Your task to perform on an android device: Open Google Chrome and click the shortcut for Amazon.com Image 0: 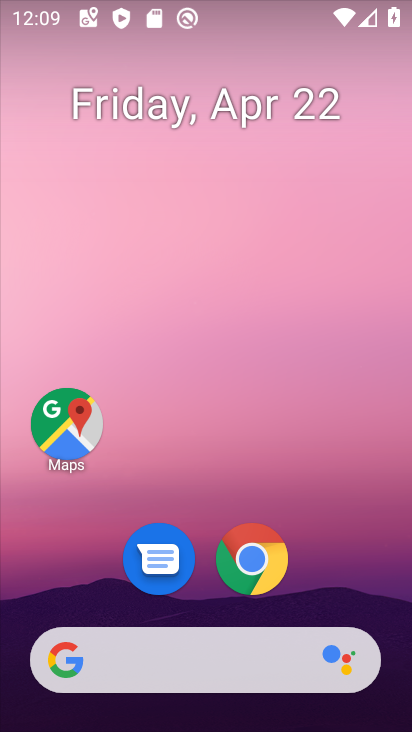
Step 0: click (263, 569)
Your task to perform on an android device: Open Google Chrome and click the shortcut for Amazon.com Image 1: 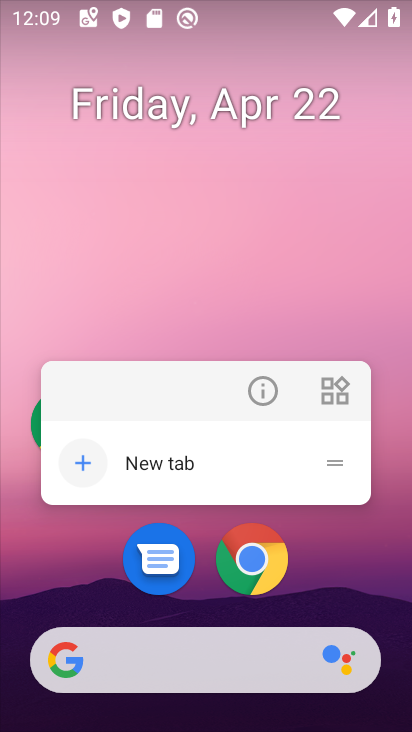
Step 1: click (252, 573)
Your task to perform on an android device: Open Google Chrome and click the shortcut for Amazon.com Image 2: 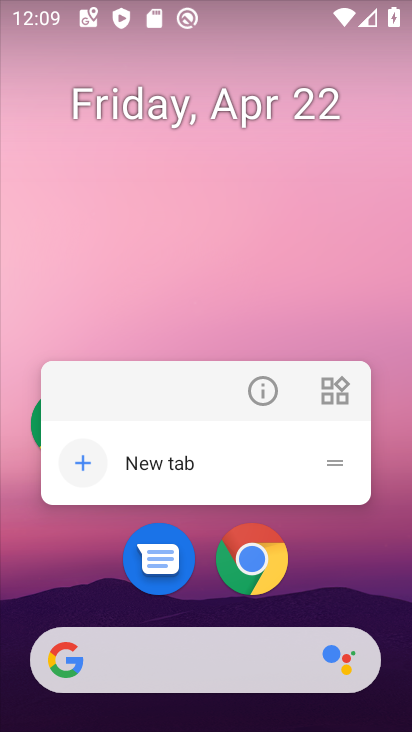
Step 2: click (261, 577)
Your task to perform on an android device: Open Google Chrome and click the shortcut for Amazon.com Image 3: 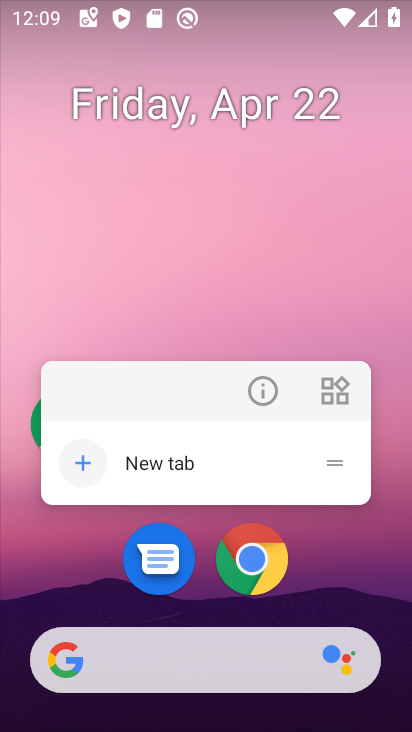
Step 3: click (261, 577)
Your task to perform on an android device: Open Google Chrome and click the shortcut for Amazon.com Image 4: 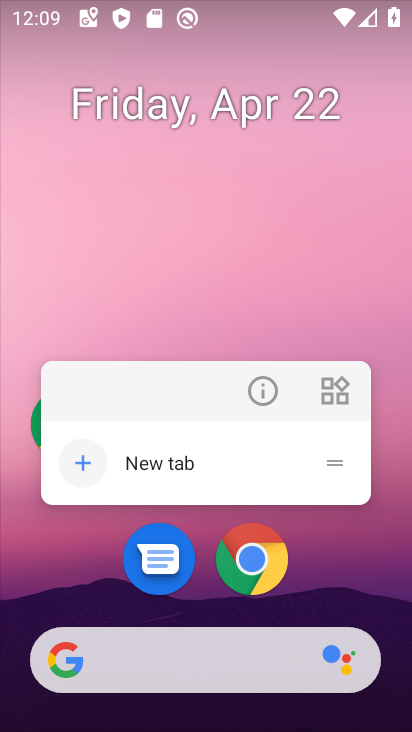
Step 4: click (252, 589)
Your task to perform on an android device: Open Google Chrome and click the shortcut for Amazon.com Image 5: 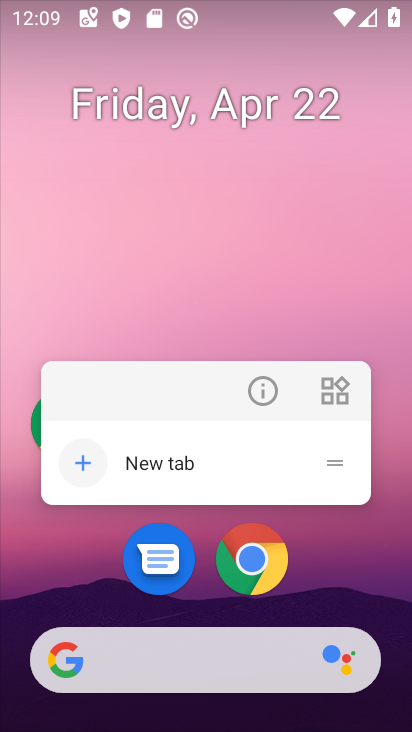
Step 5: click (254, 589)
Your task to perform on an android device: Open Google Chrome and click the shortcut for Amazon.com Image 6: 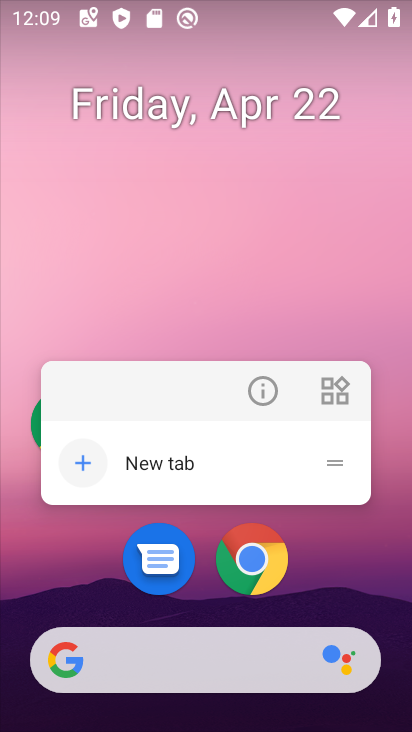
Step 6: click (255, 588)
Your task to perform on an android device: Open Google Chrome and click the shortcut for Amazon.com Image 7: 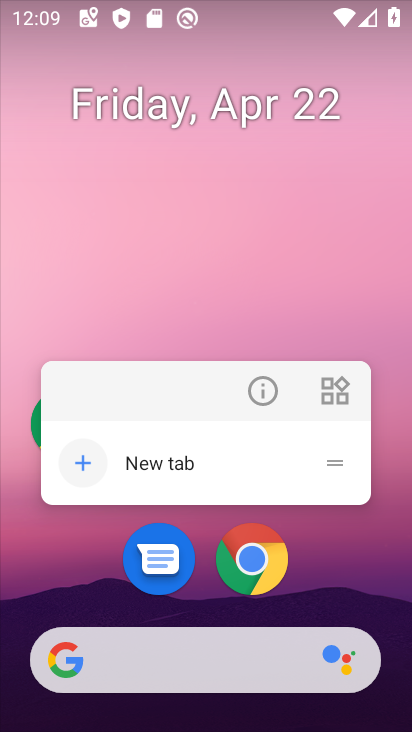
Step 7: click (247, 558)
Your task to perform on an android device: Open Google Chrome and click the shortcut for Amazon.com Image 8: 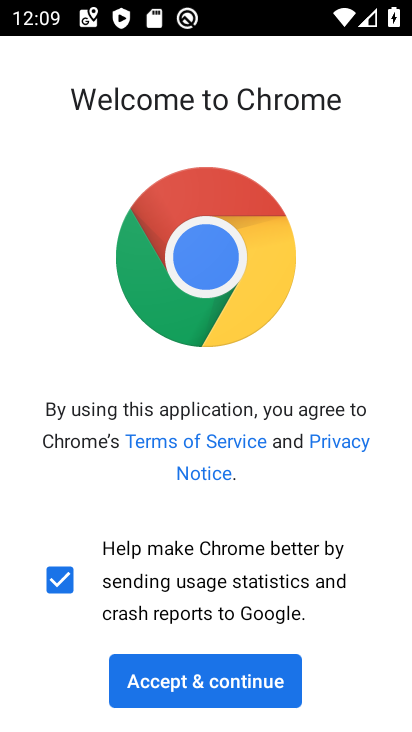
Step 8: click (189, 666)
Your task to perform on an android device: Open Google Chrome and click the shortcut for Amazon.com Image 9: 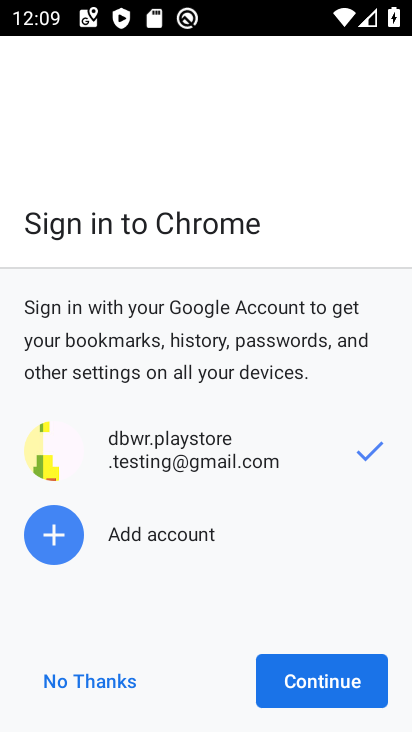
Step 9: click (288, 686)
Your task to perform on an android device: Open Google Chrome and click the shortcut for Amazon.com Image 10: 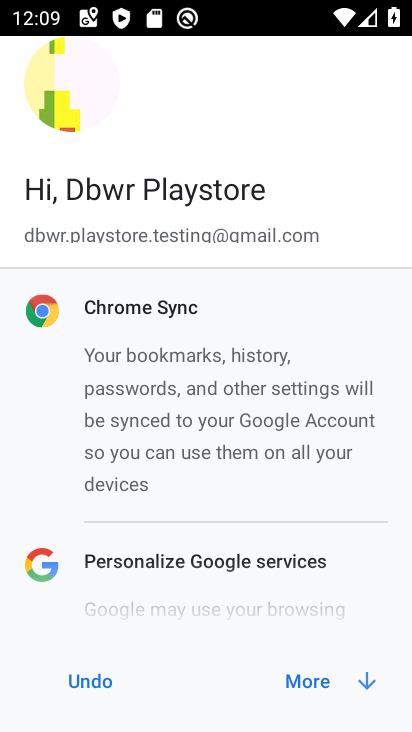
Step 10: click (289, 690)
Your task to perform on an android device: Open Google Chrome and click the shortcut for Amazon.com Image 11: 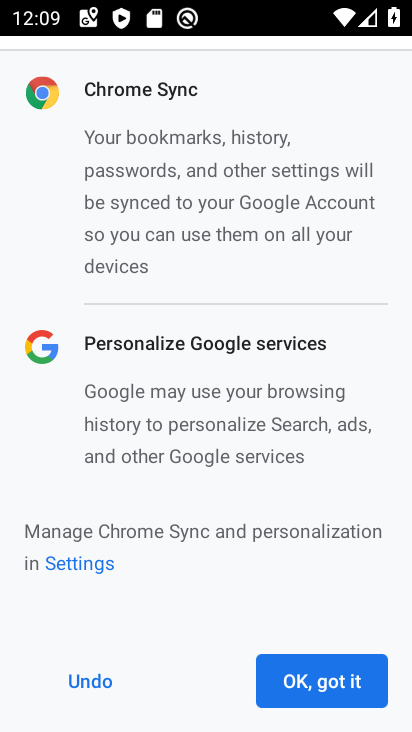
Step 11: click (289, 690)
Your task to perform on an android device: Open Google Chrome and click the shortcut for Amazon.com Image 12: 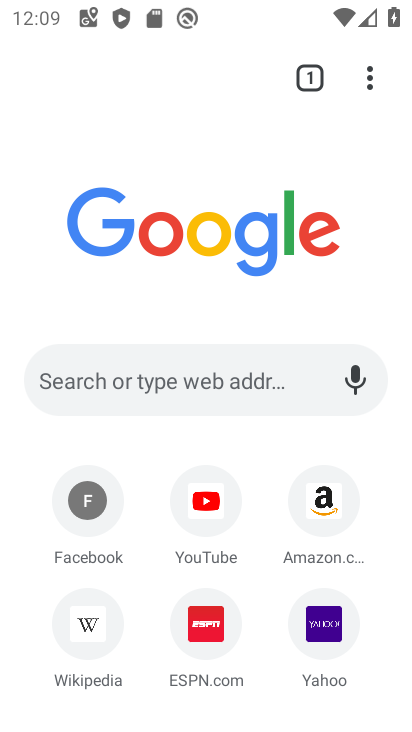
Step 12: click (318, 520)
Your task to perform on an android device: Open Google Chrome and click the shortcut for Amazon.com Image 13: 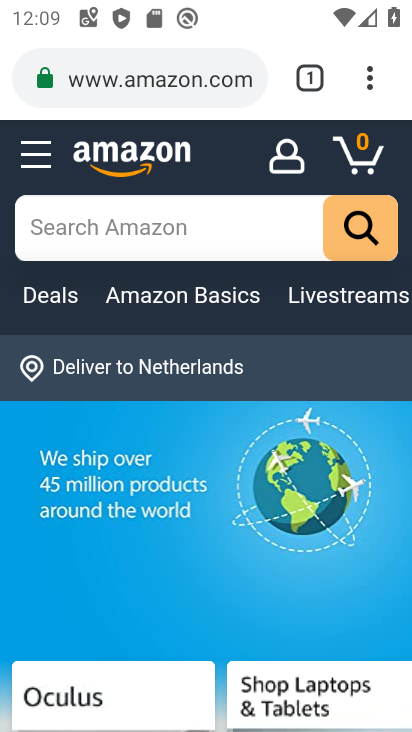
Step 13: task complete